Your task to perform on an android device: delete the emails in spam in the gmail app Image 0: 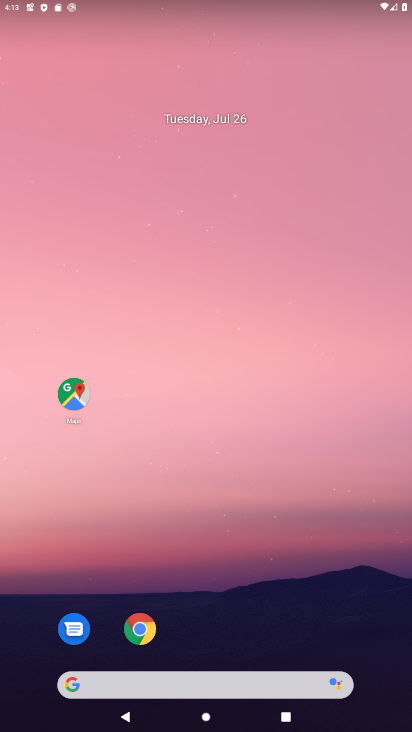
Step 0: drag from (354, 613) to (274, 191)
Your task to perform on an android device: delete the emails in spam in the gmail app Image 1: 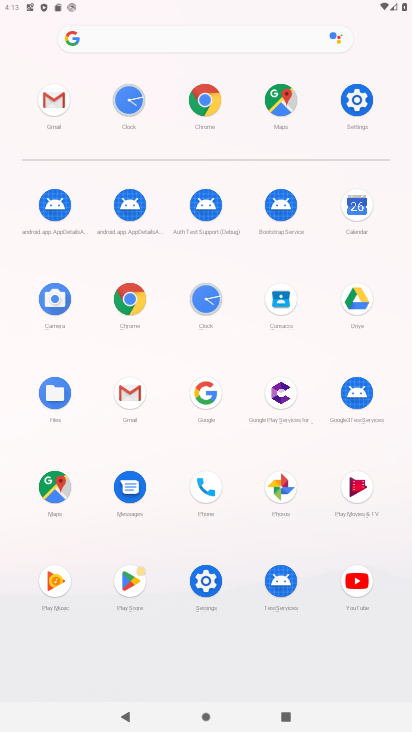
Step 1: click (123, 395)
Your task to perform on an android device: delete the emails in spam in the gmail app Image 2: 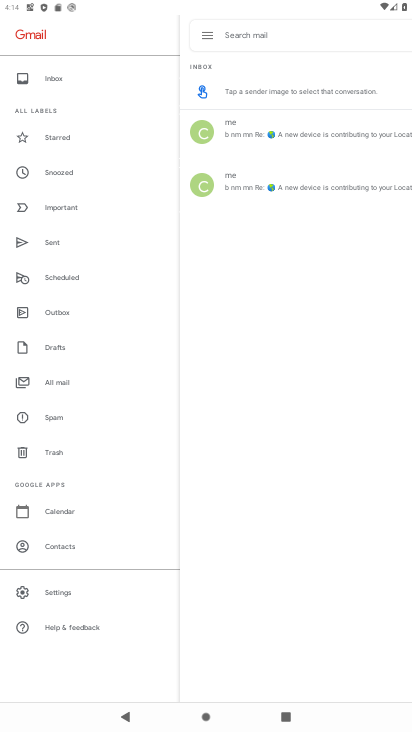
Step 2: click (40, 418)
Your task to perform on an android device: delete the emails in spam in the gmail app Image 3: 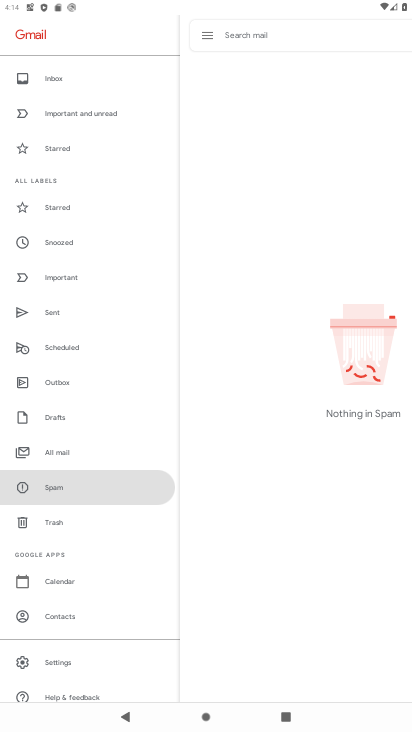
Step 3: task complete